Your task to perform on an android device: How much does a 3 bedroom apartment rent for in Philadelphia? Image 0: 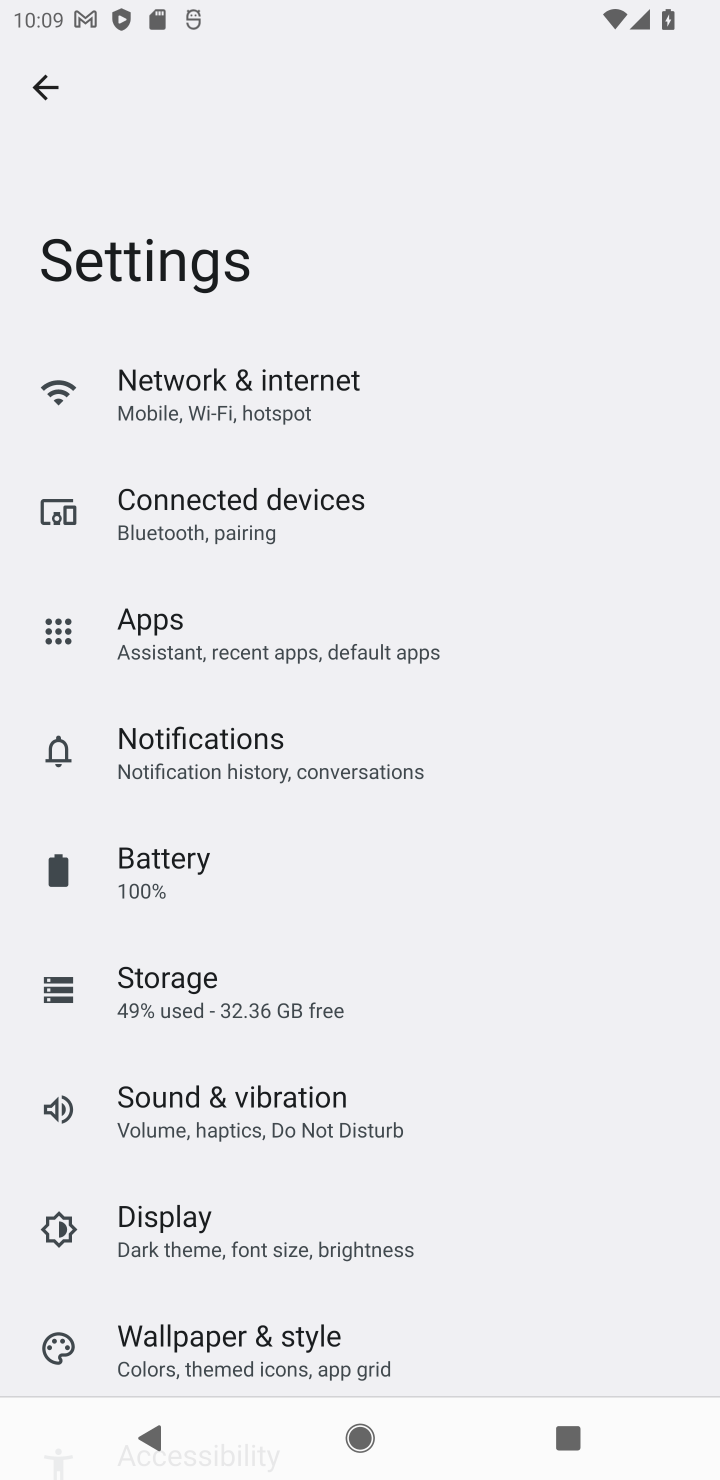
Step 0: press home button
Your task to perform on an android device: How much does a 3 bedroom apartment rent for in Philadelphia? Image 1: 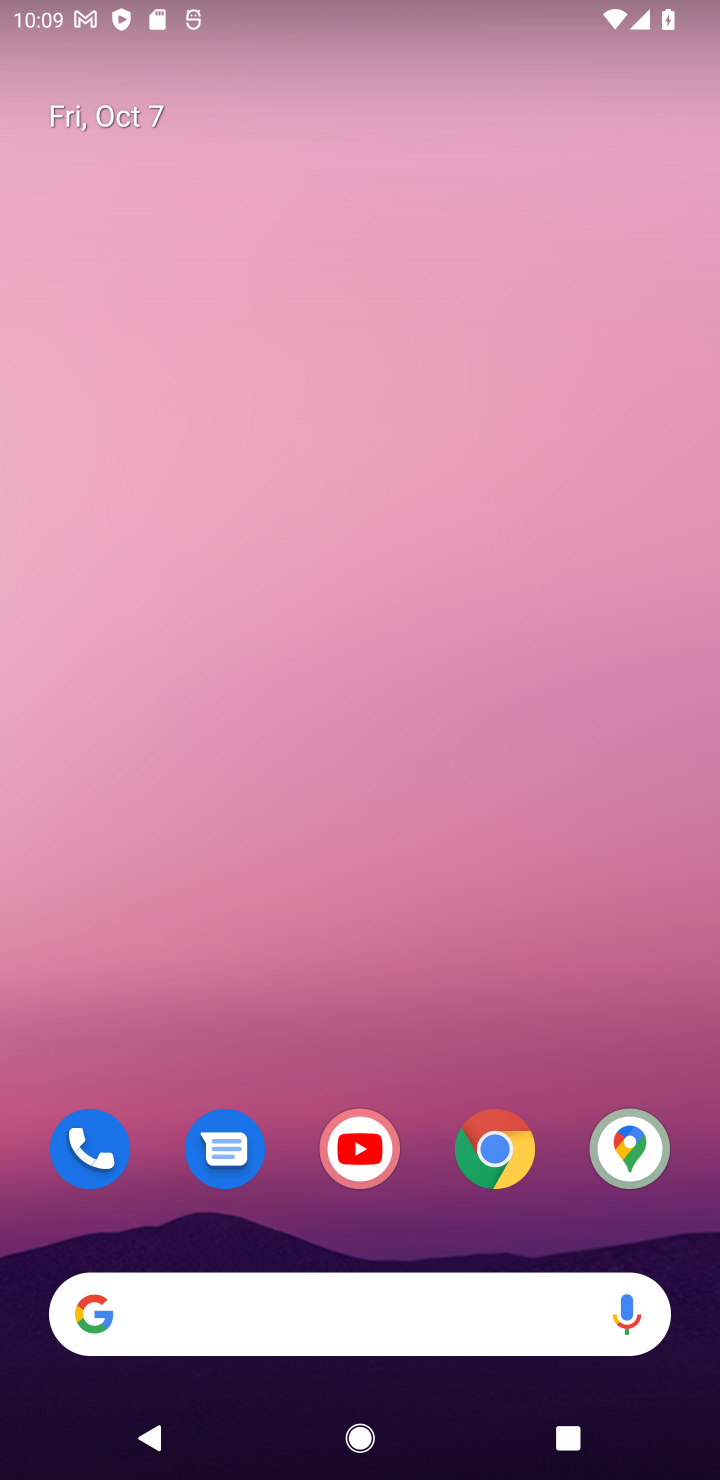
Step 1: click (309, 1322)
Your task to perform on an android device: How much does a 3 bedroom apartment rent for in Philadelphia? Image 2: 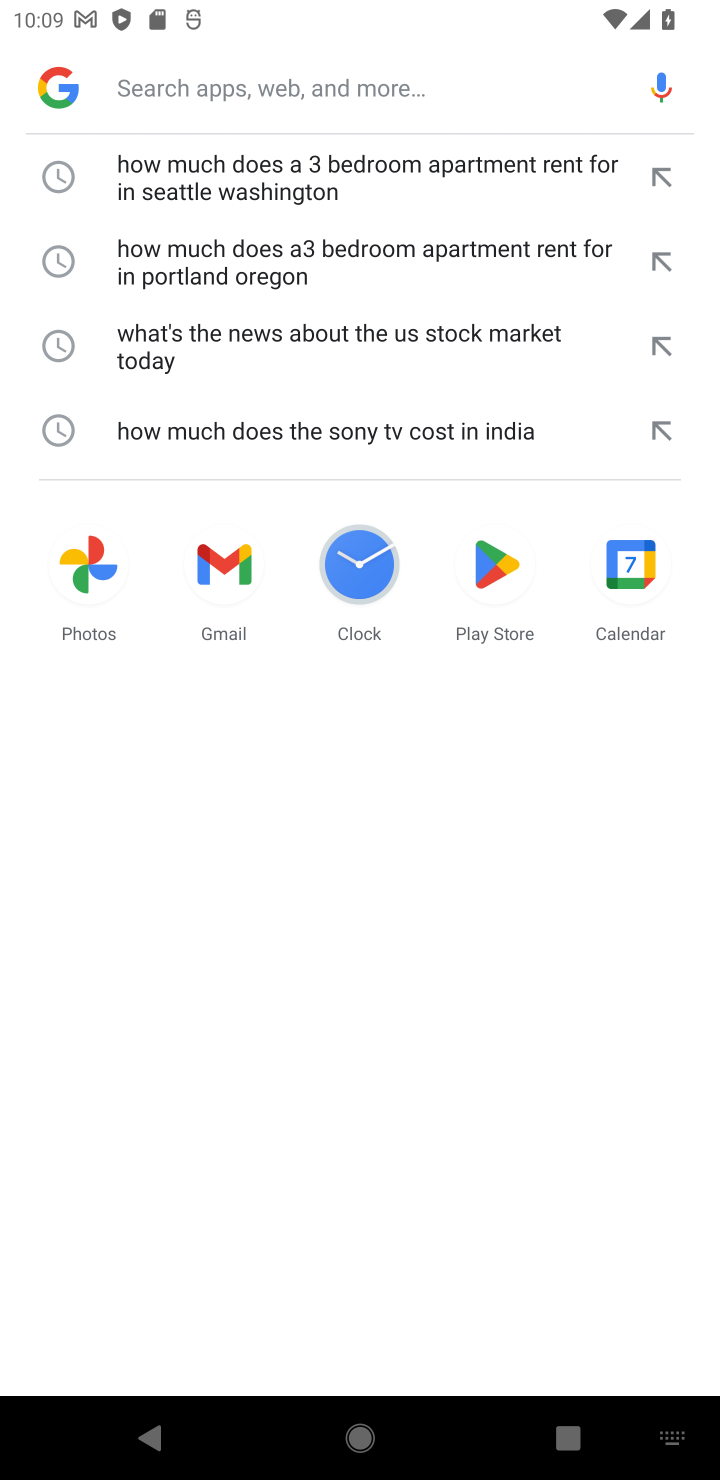
Step 2: type "How much does a 3 bedroom apartment rent for in Philadelphia?"
Your task to perform on an android device: How much does a 3 bedroom apartment rent for in Philadelphia? Image 3: 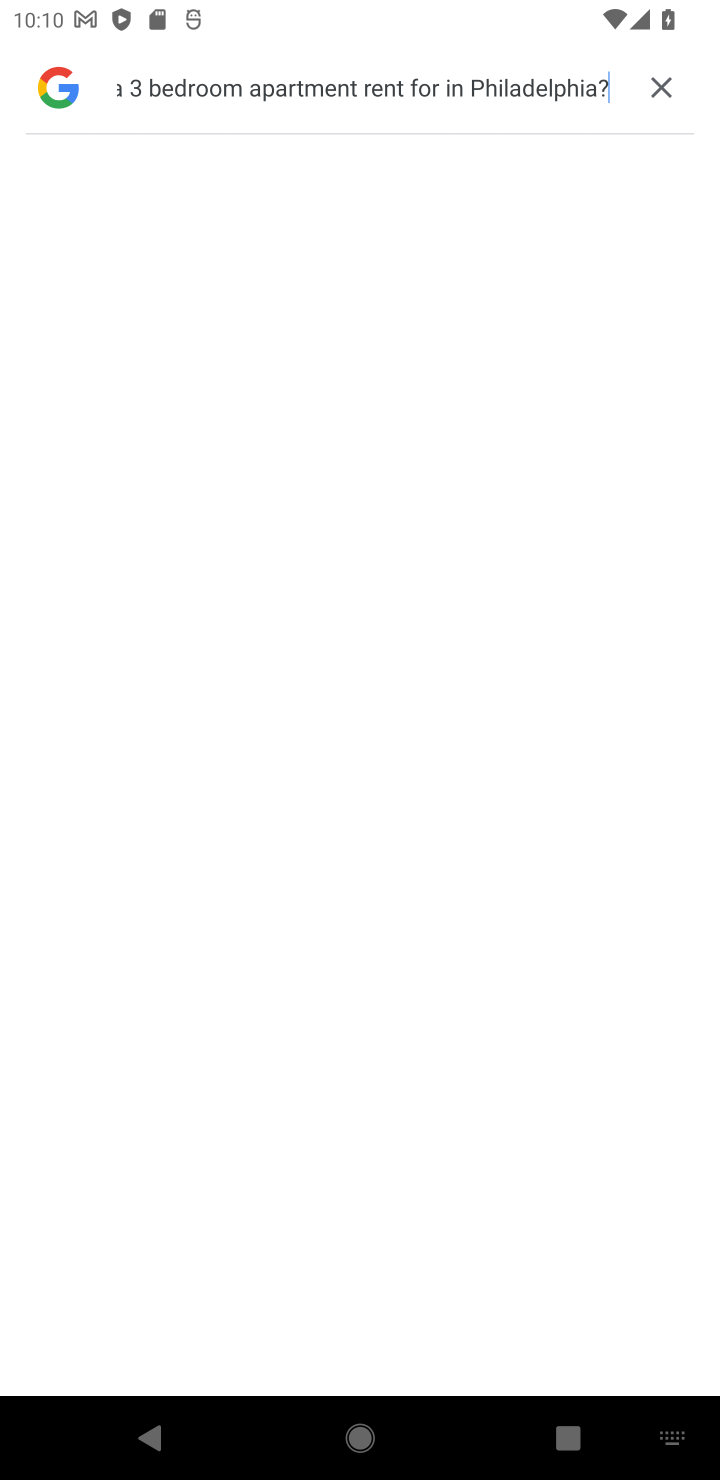
Step 3: task complete